Your task to perform on an android device: Open the Play Movies app and select the watchlist tab. Image 0: 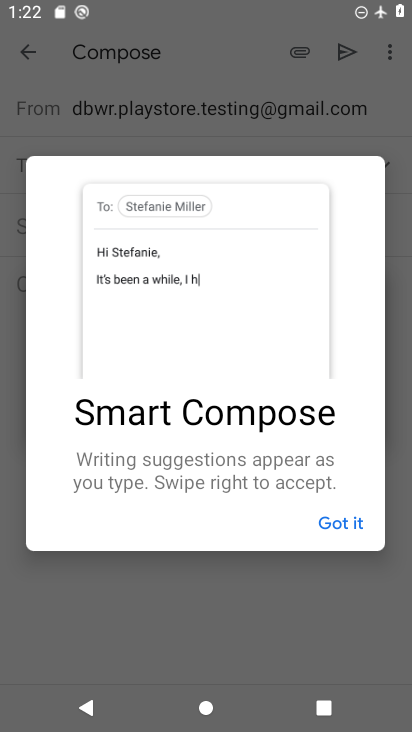
Step 0: press home button
Your task to perform on an android device: Open the Play Movies app and select the watchlist tab. Image 1: 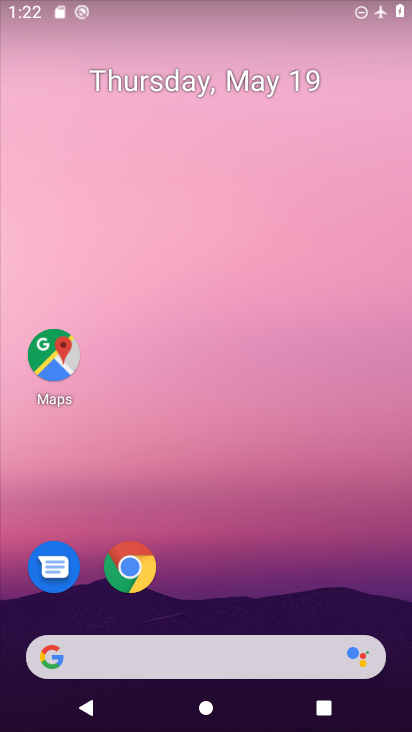
Step 1: drag from (264, 511) to (328, 70)
Your task to perform on an android device: Open the Play Movies app and select the watchlist tab. Image 2: 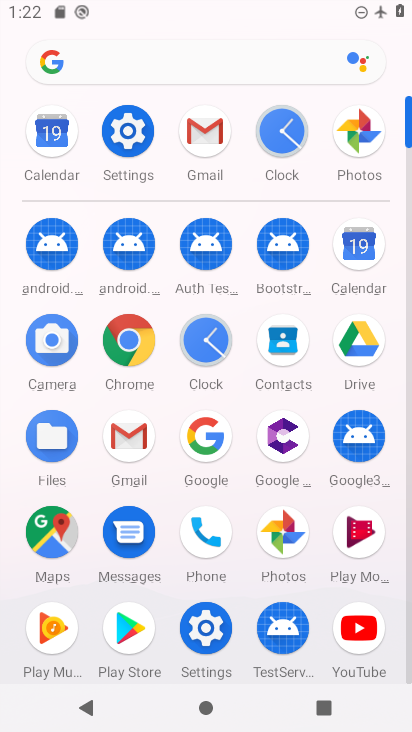
Step 2: click (354, 526)
Your task to perform on an android device: Open the Play Movies app and select the watchlist tab. Image 3: 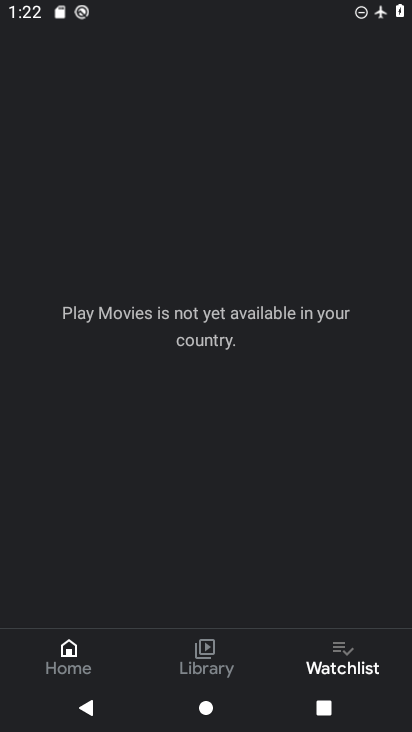
Step 3: click (352, 659)
Your task to perform on an android device: Open the Play Movies app and select the watchlist tab. Image 4: 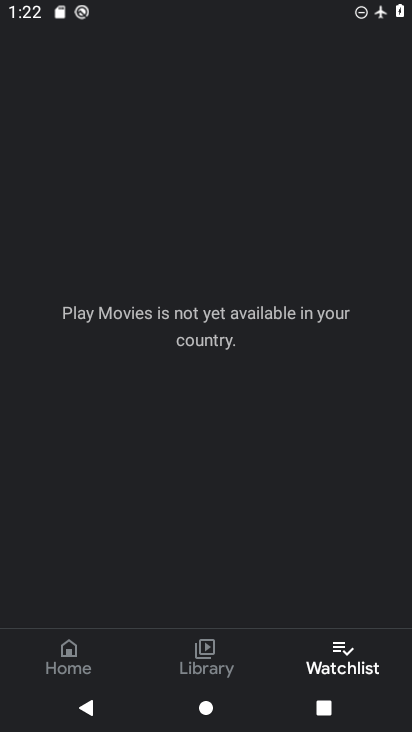
Step 4: task complete